Your task to perform on an android device: Open Google Maps Image 0: 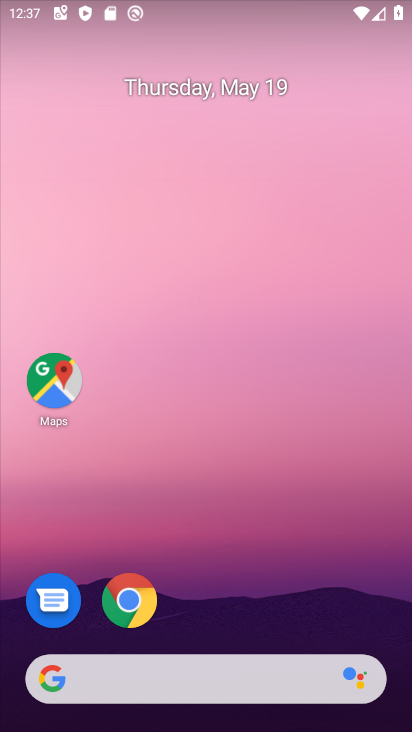
Step 0: click (59, 388)
Your task to perform on an android device: Open Google Maps Image 1: 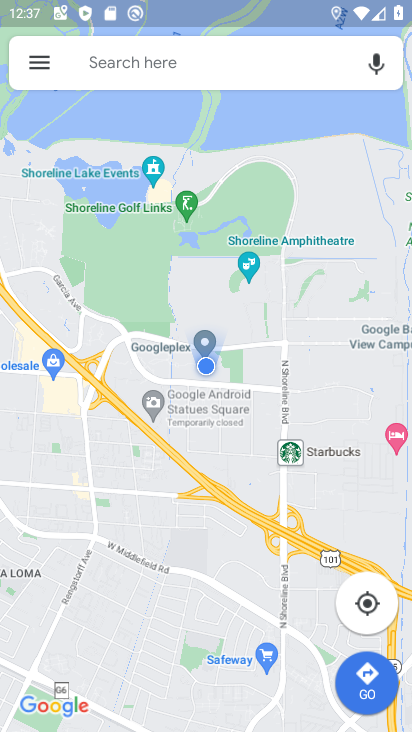
Step 1: task complete